Your task to perform on an android device: turn off smart reply in the gmail app Image 0: 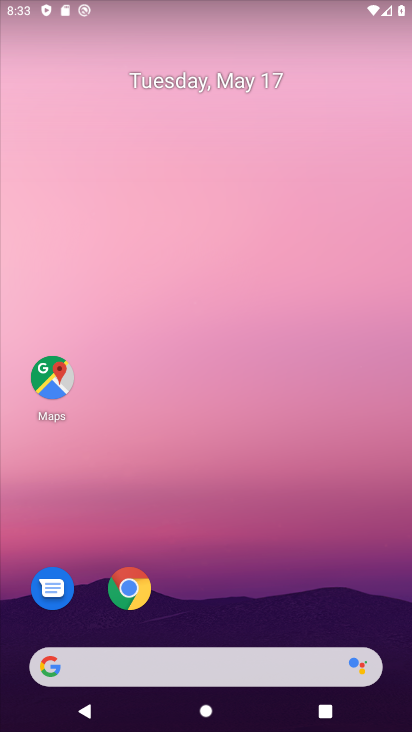
Step 0: drag from (208, 583) to (241, 99)
Your task to perform on an android device: turn off smart reply in the gmail app Image 1: 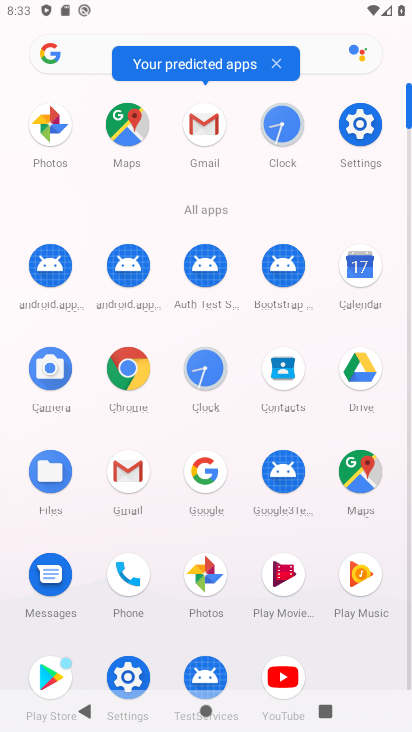
Step 1: click (136, 472)
Your task to perform on an android device: turn off smart reply in the gmail app Image 2: 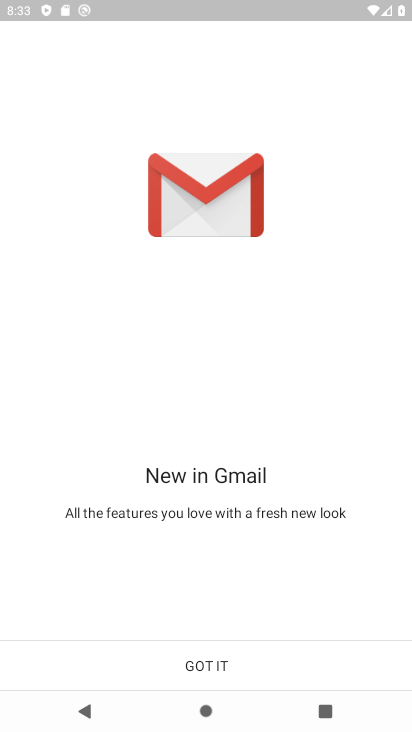
Step 2: click (235, 658)
Your task to perform on an android device: turn off smart reply in the gmail app Image 3: 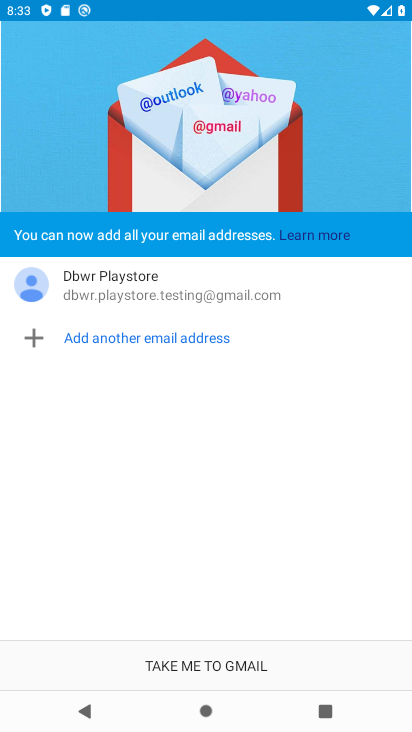
Step 3: click (236, 661)
Your task to perform on an android device: turn off smart reply in the gmail app Image 4: 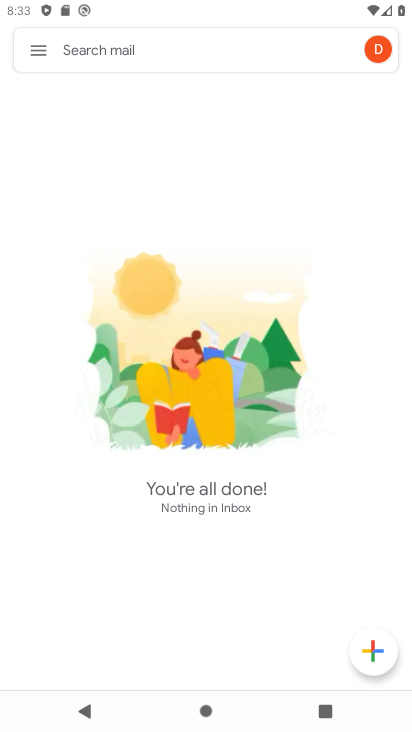
Step 4: click (40, 53)
Your task to perform on an android device: turn off smart reply in the gmail app Image 5: 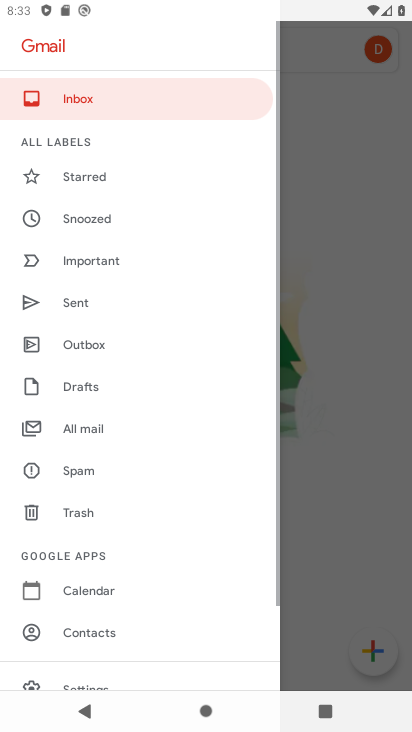
Step 5: drag from (125, 635) to (125, 393)
Your task to perform on an android device: turn off smart reply in the gmail app Image 6: 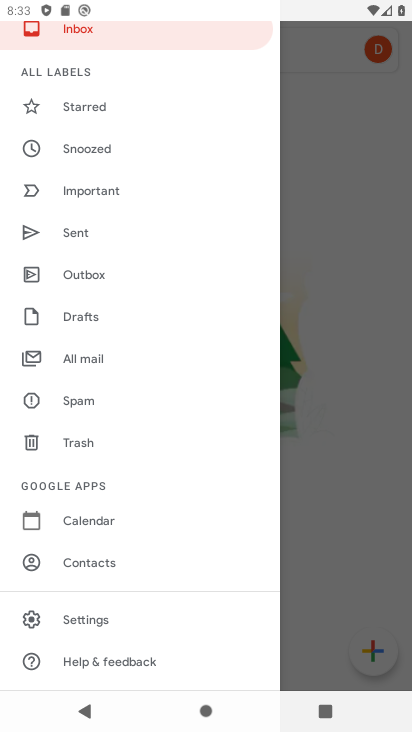
Step 6: click (96, 618)
Your task to perform on an android device: turn off smart reply in the gmail app Image 7: 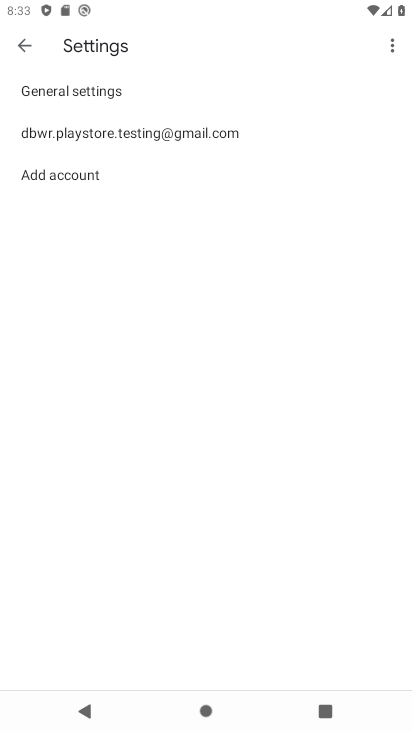
Step 7: click (151, 138)
Your task to perform on an android device: turn off smart reply in the gmail app Image 8: 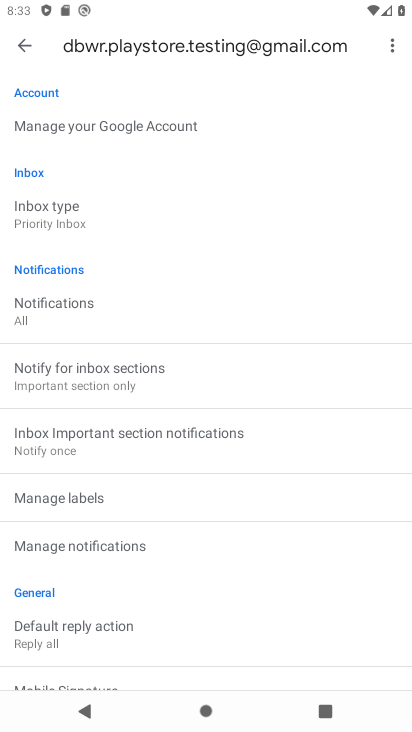
Step 8: drag from (220, 638) to (216, 151)
Your task to perform on an android device: turn off smart reply in the gmail app Image 9: 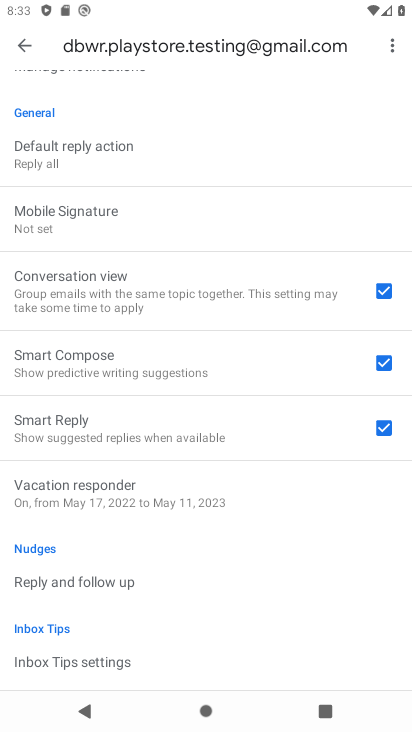
Step 9: click (385, 424)
Your task to perform on an android device: turn off smart reply in the gmail app Image 10: 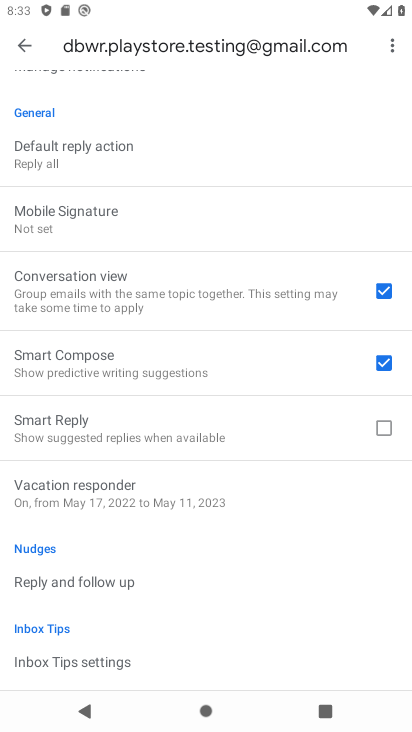
Step 10: task complete